Your task to perform on an android device: Open location settings Image 0: 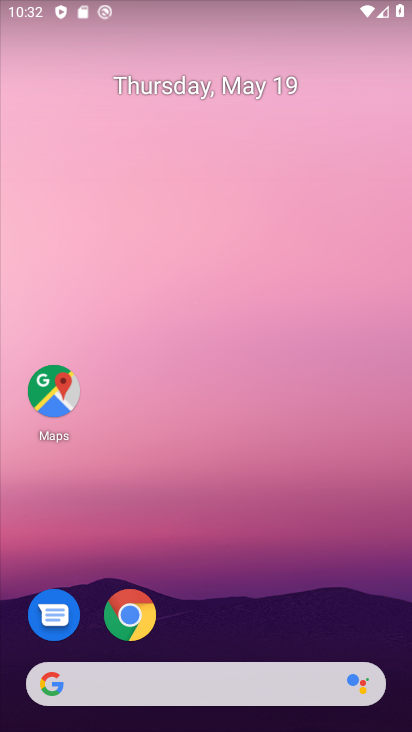
Step 0: drag from (289, 723) to (114, 192)
Your task to perform on an android device: Open location settings Image 1: 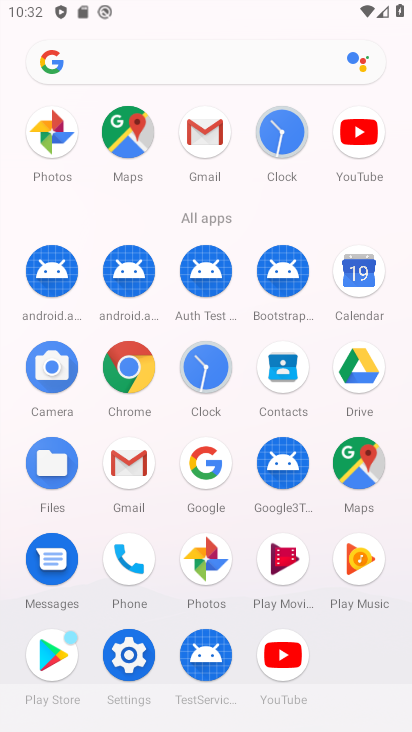
Step 1: click (122, 665)
Your task to perform on an android device: Open location settings Image 2: 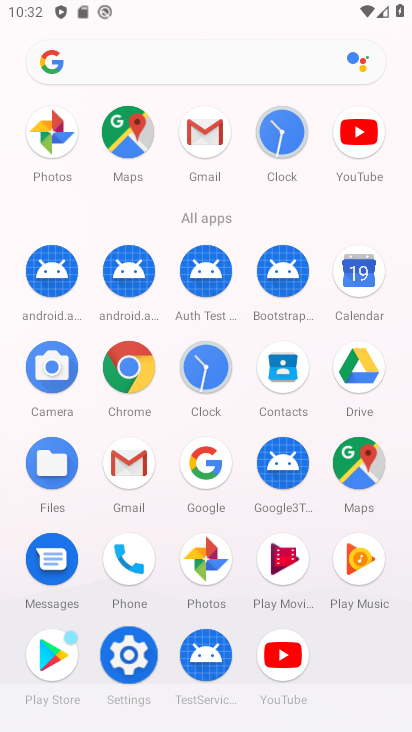
Step 2: click (124, 663)
Your task to perform on an android device: Open location settings Image 3: 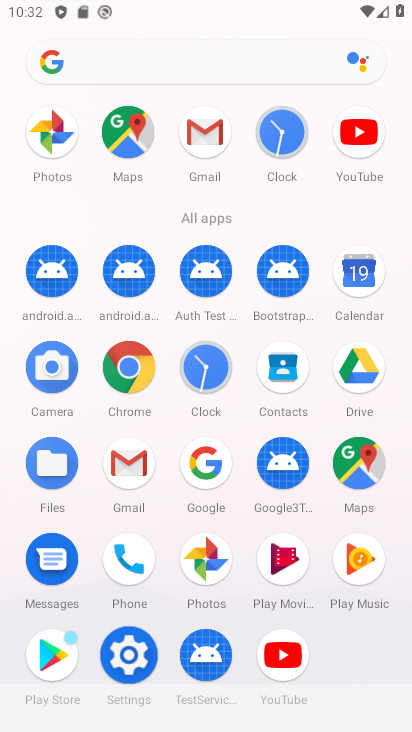
Step 3: click (124, 662)
Your task to perform on an android device: Open location settings Image 4: 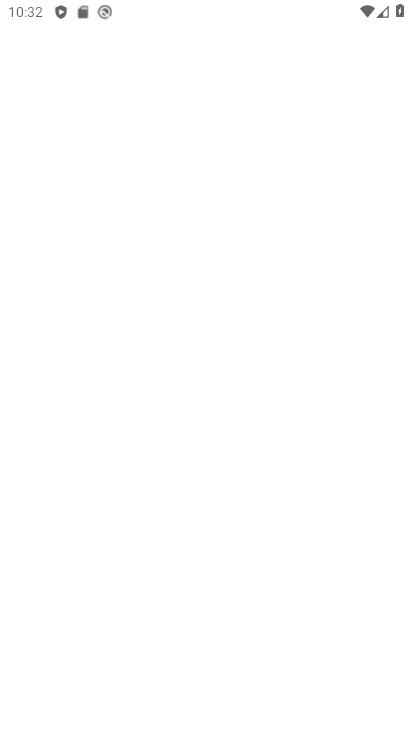
Step 4: click (128, 650)
Your task to perform on an android device: Open location settings Image 5: 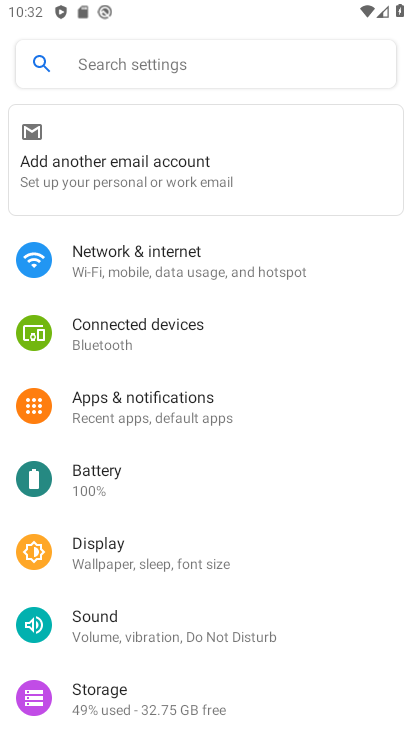
Step 5: drag from (148, 525) to (200, 183)
Your task to perform on an android device: Open location settings Image 6: 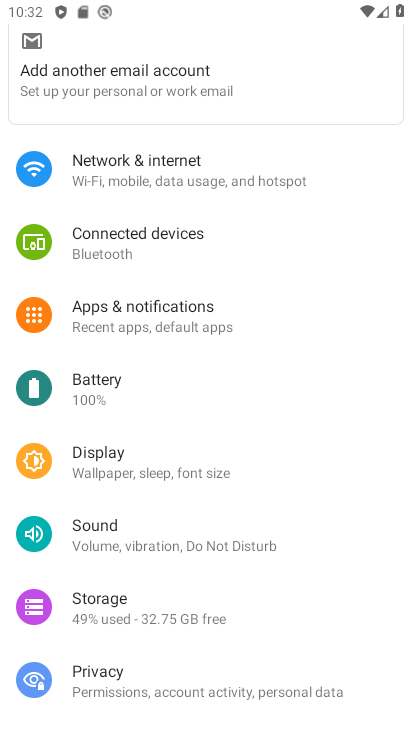
Step 6: drag from (202, 394) to (237, 76)
Your task to perform on an android device: Open location settings Image 7: 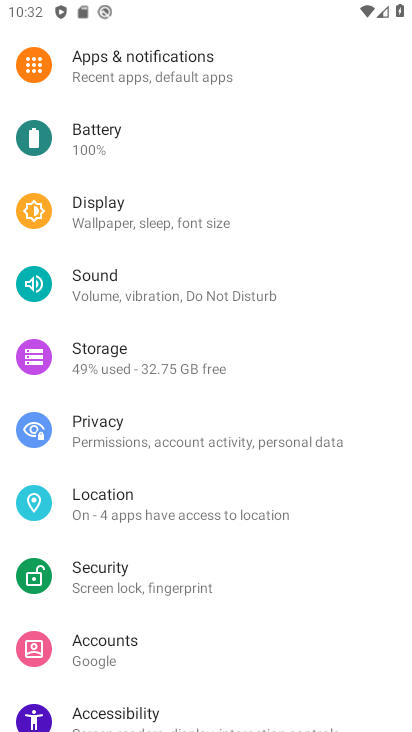
Step 7: click (106, 505)
Your task to perform on an android device: Open location settings Image 8: 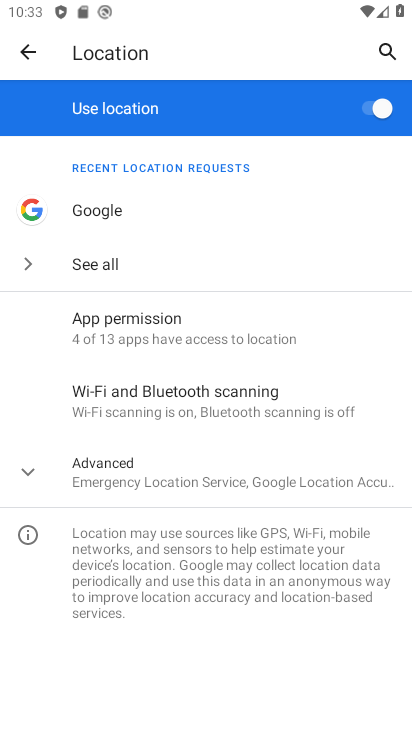
Step 8: task complete